Your task to perform on an android device: What is the recent news? Image 0: 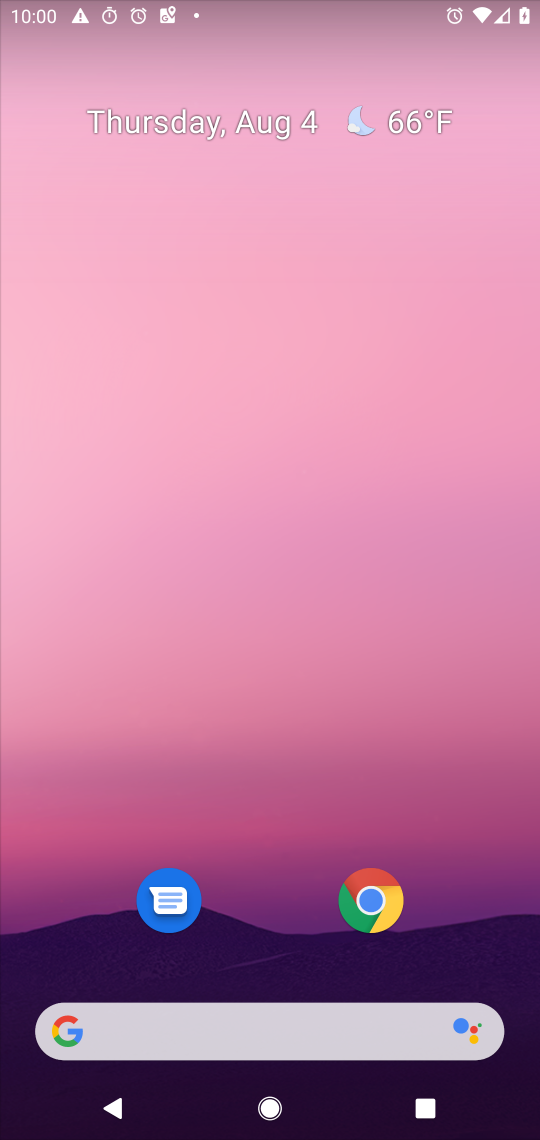
Step 0: drag from (196, 1026) to (226, 157)
Your task to perform on an android device: What is the recent news? Image 1: 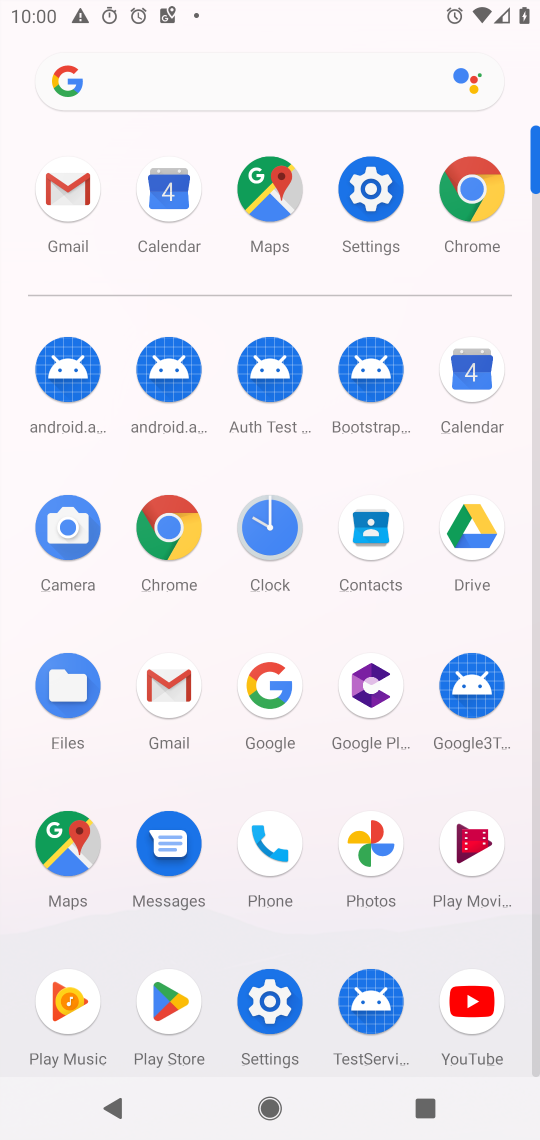
Step 1: click (268, 684)
Your task to perform on an android device: What is the recent news? Image 2: 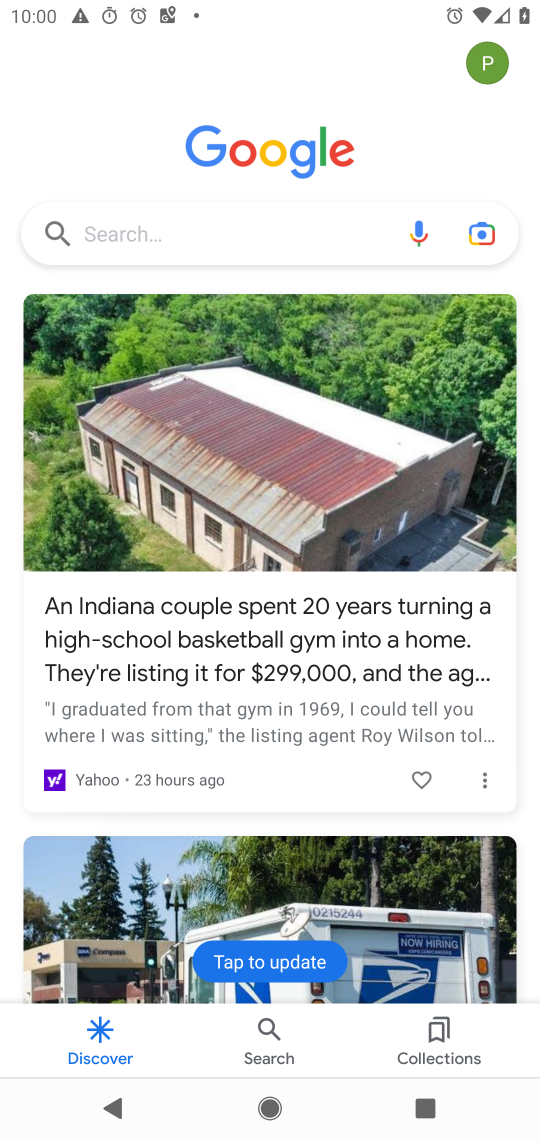
Step 2: click (257, 236)
Your task to perform on an android device: What is the recent news? Image 3: 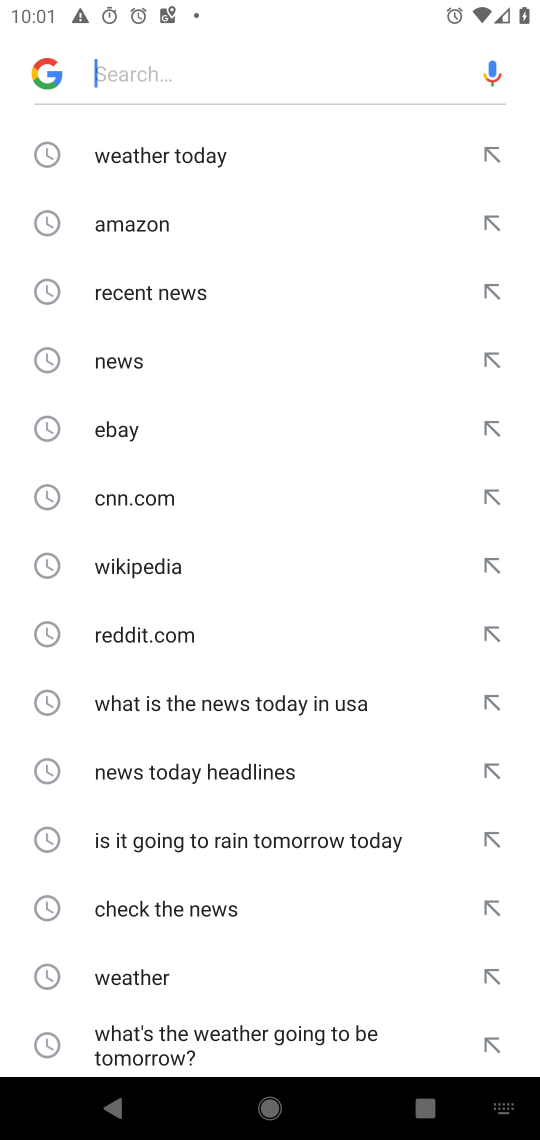
Step 3: type "recent news"
Your task to perform on an android device: What is the recent news? Image 4: 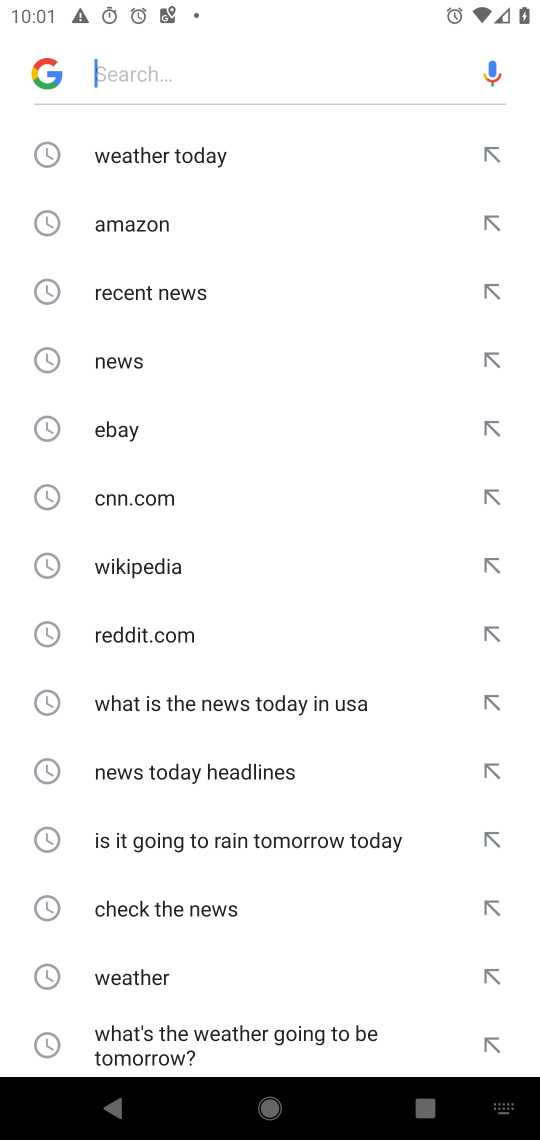
Step 4: click (169, 294)
Your task to perform on an android device: What is the recent news? Image 5: 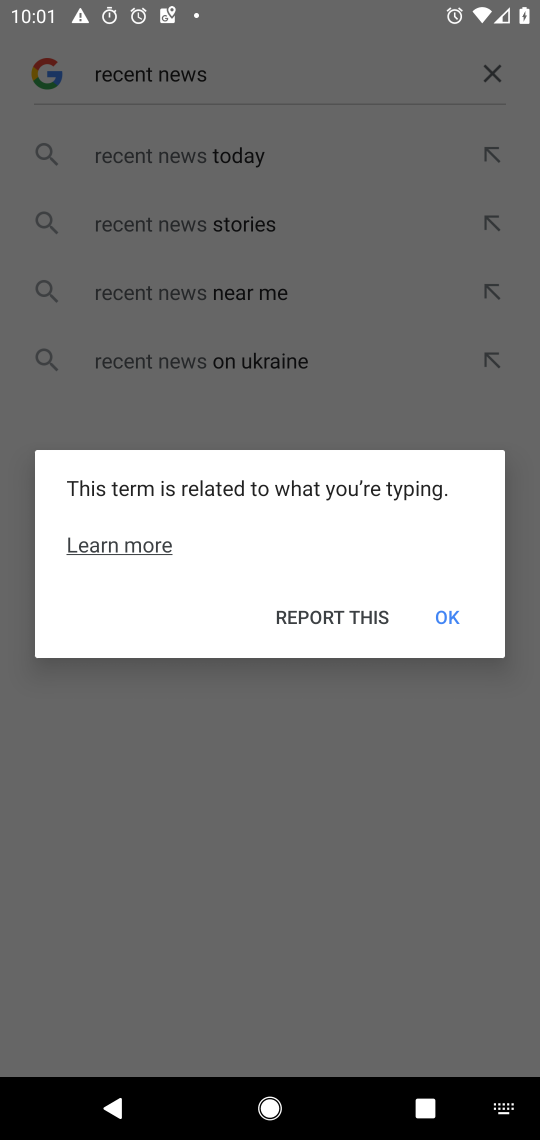
Step 5: click (450, 617)
Your task to perform on an android device: What is the recent news? Image 6: 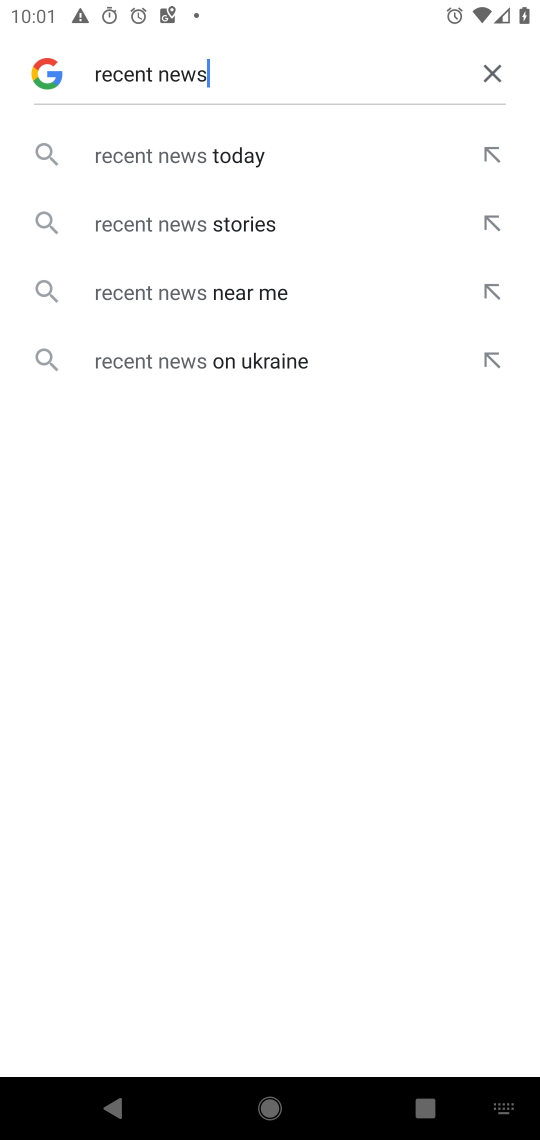
Step 6: click (191, 163)
Your task to perform on an android device: What is the recent news? Image 7: 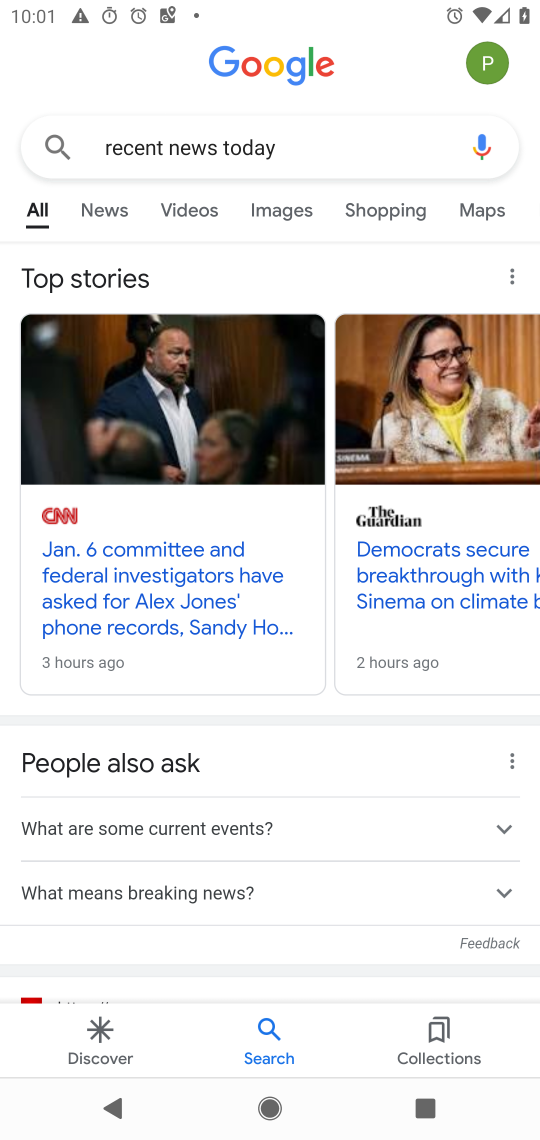
Step 7: click (178, 576)
Your task to perform on an android device: What is the recent news? Image 8: 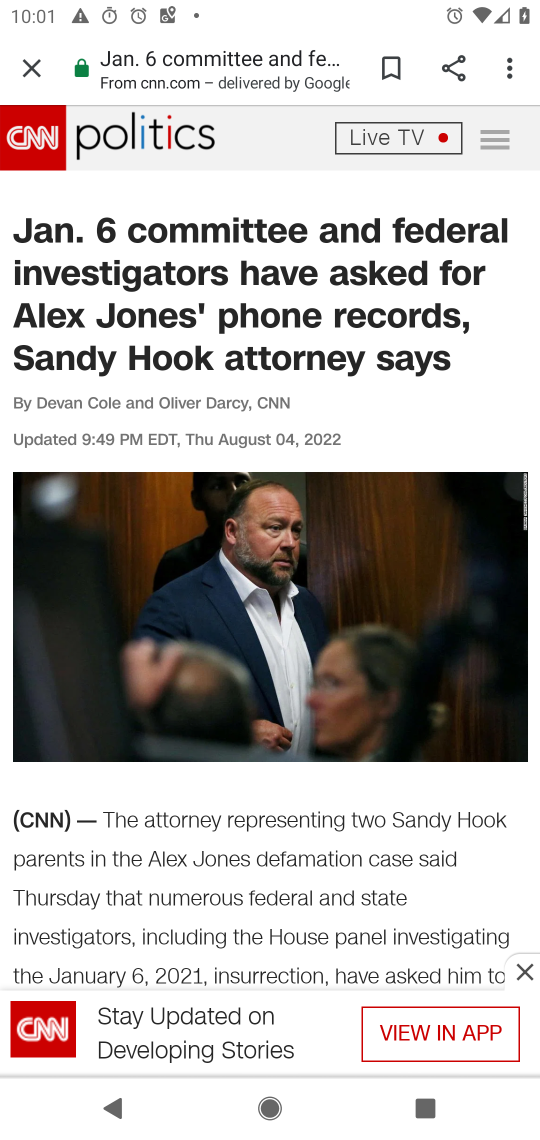
Step 8: task complete